Your task to perform on an android device: Open wifi settings Image 0: 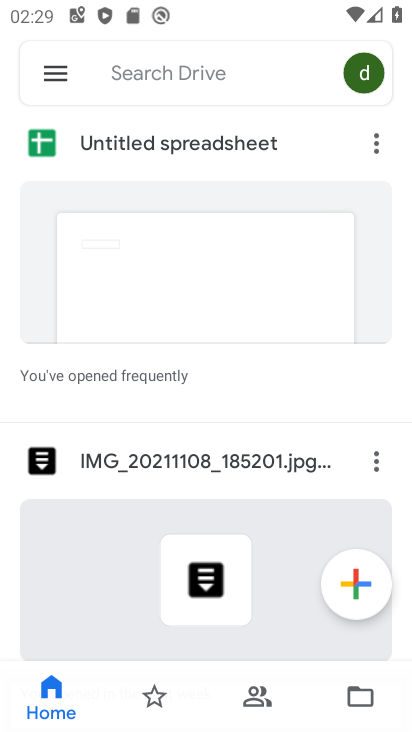
Step 0: press home button
Your task to perform on an android device: Open wifi settings Image 1: 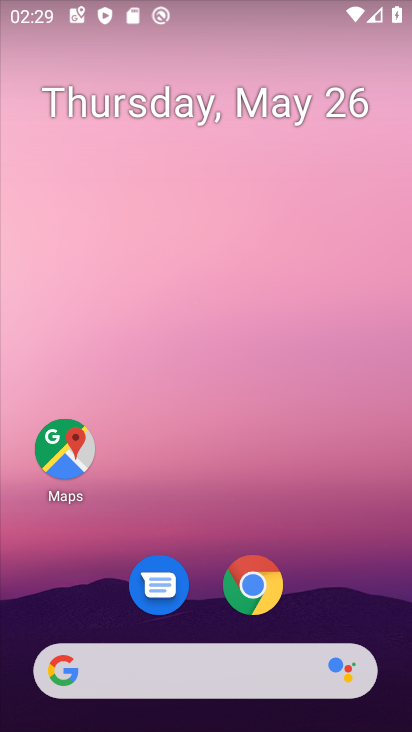
Step 1: drag from (226, 487) to (228, 39)
Your task to perform on an android device: Open wifi settings Image 2: 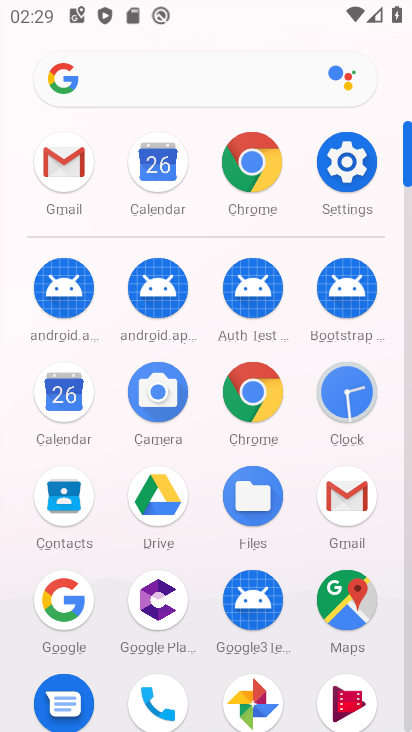
Step 2: click (345, 162)
Your task to perform on an android device: Open wifi settings Image 3: 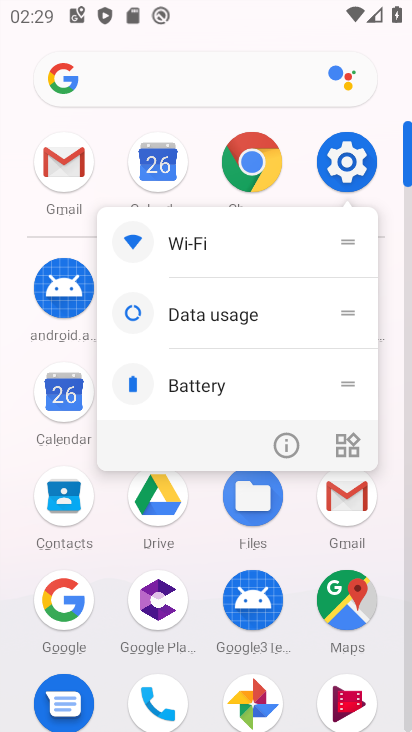
Step 3: click (343, 164)
Your task to perform on an android device: Open wifi settings Image 4: 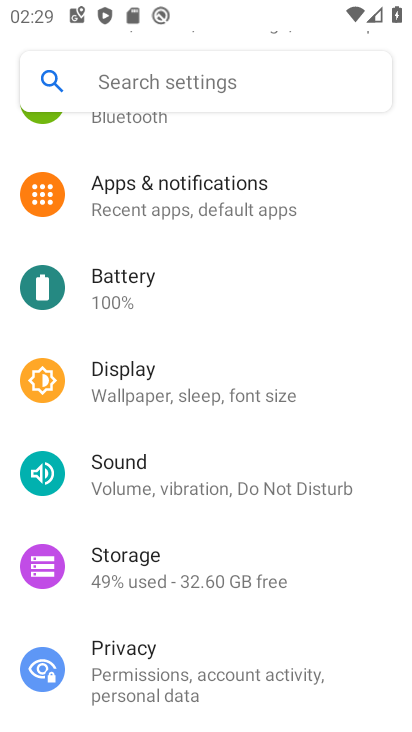
Step 4: drag from (252, 235) to (266, 542)
Your task to perform on an android device: Open wifi settings Image 5: 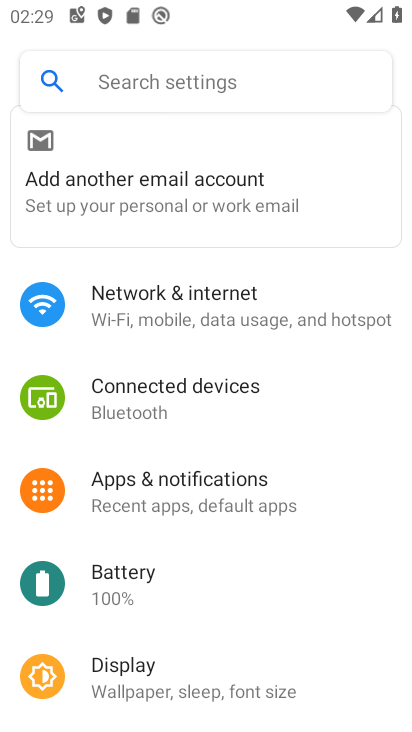
Step 5: click (228, 301)
Your task to perform on an android device: Open wifi settings Image 6: 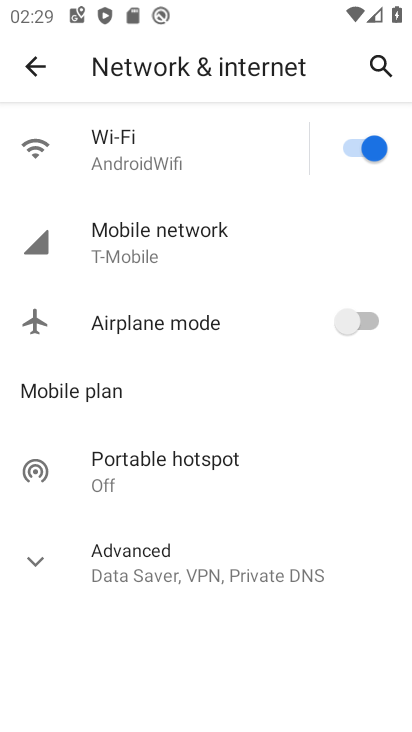
Step 6: click (164, 147)
Your task to perform on an android device: Open wifi settings Image 7: 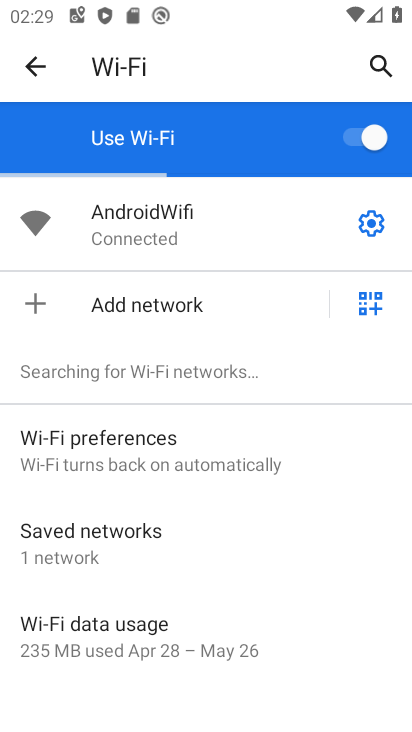
Step 7: task complete